Your task to perform on an android device: open a bookmark in the chrome app Image 0: 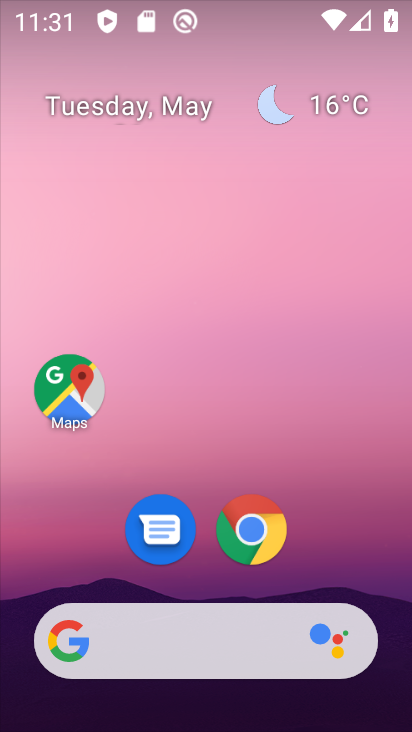
Step 0: click (272, 533)
Your task to perform on an android device: open a bookmark in the chrome app Image 1: 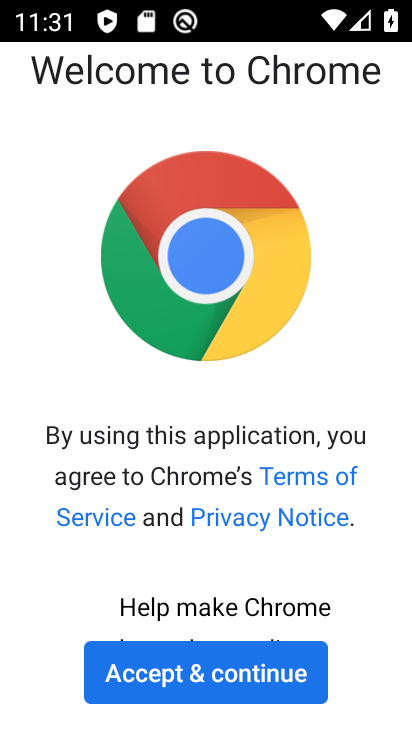
Step 1: click (274, 663)
Your task to perform on an android device: open a bookmark in the chrome app Image 2: 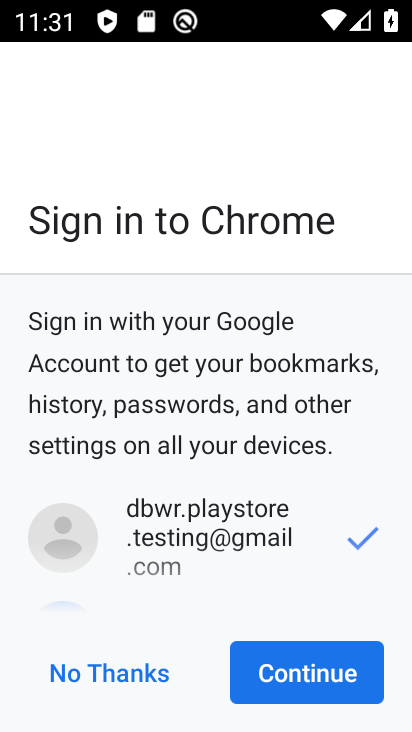
Step 2: click (327, 673)
Your task to perform on an android device: open a bookmark in the chrome app Image 3: 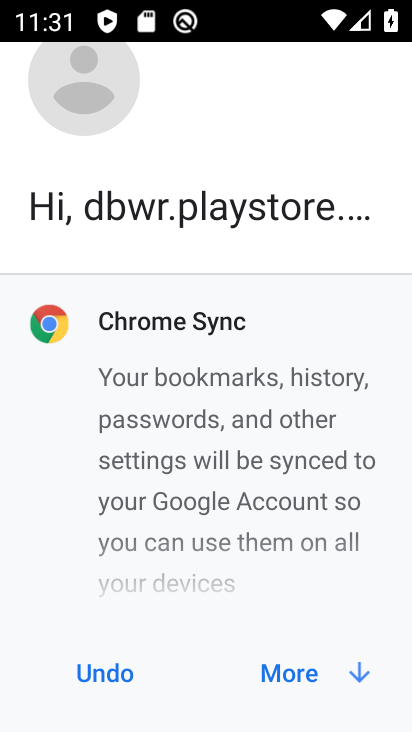
Step 3: click (345, 665)
Your task to perform on an android device: open a bookmark in the chrome app Image 4: 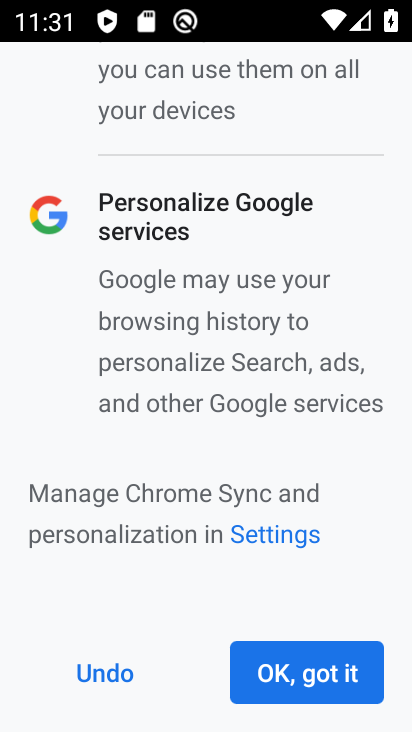
Step 4: click (345, 665)
Your task to perform on an android device: open a bookmark in the chrome app Image 5: 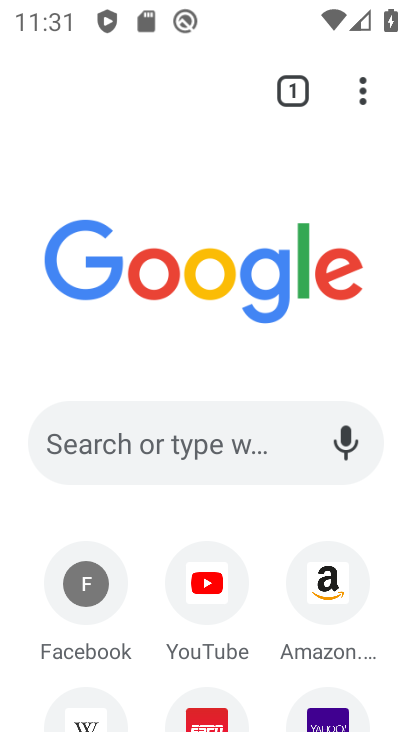
Step 5: drag from (356, 104) to (236, 372)
Your task to perform on an android device: open a bookmark in the chrome app Image 6: 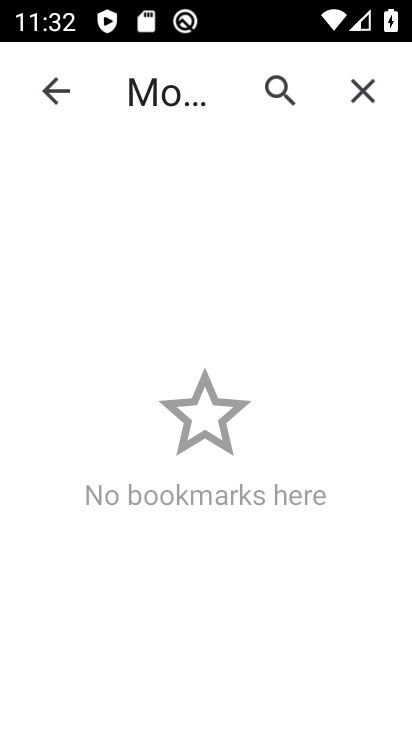
Step 6: click (237, 372)
Your task to perform on an android device: open a bookmark in the chrome app Image 7: 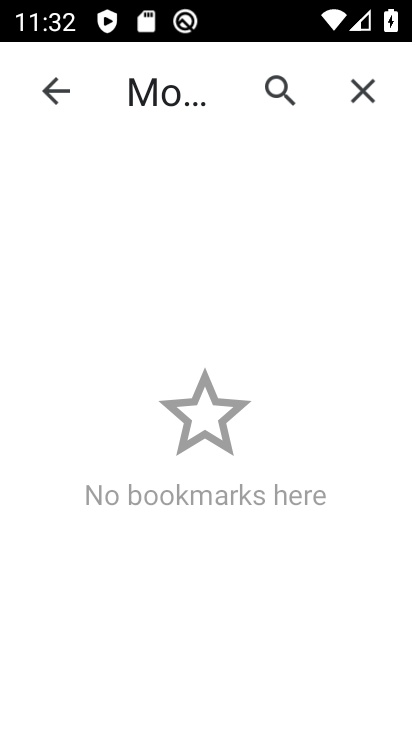
Step 7: task complete